Your task to perform on an android device: change notifications settings Image 0: 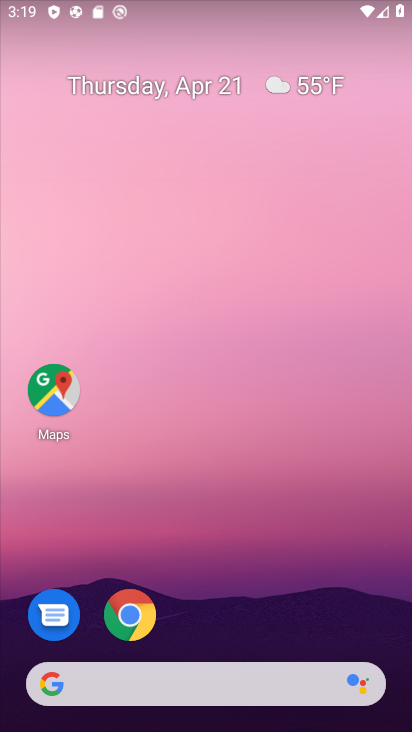
Step 0: drag from (307, 472) to (258, 24)
Your task to perform on an android device: change notifications settings Image 1: 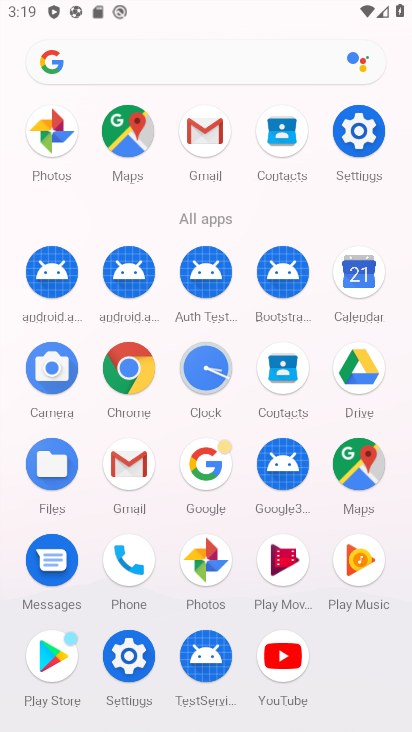
Step 1: click (131, 654)
Your task to perform on an android device: change notifications settings Image 2: 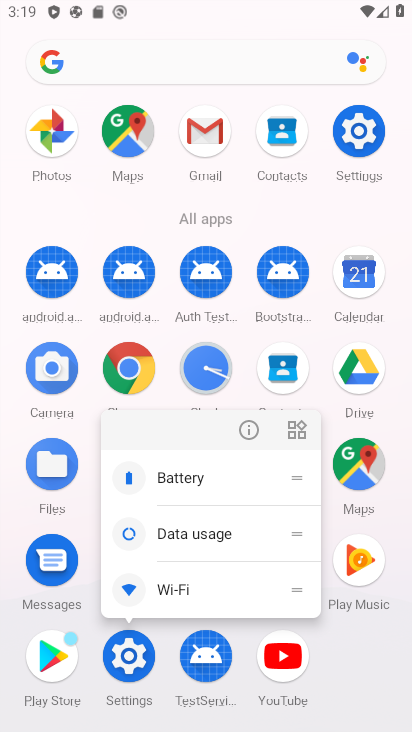
Step 2: click (131, 654)
Your task to perform on an android device: change notifications settings Image 3: 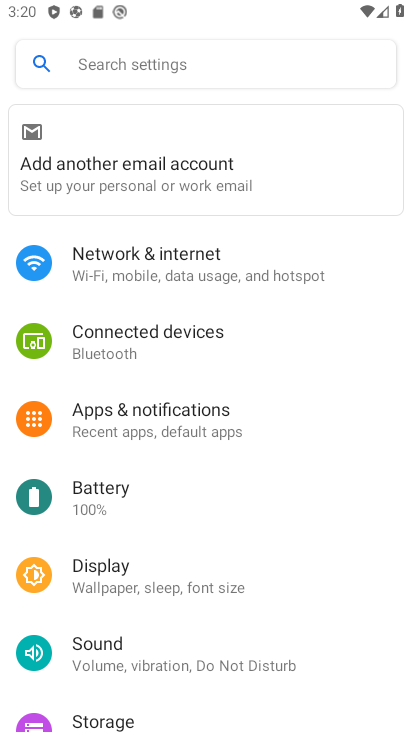
Step 3: drag from (293, 580) to (316, 215)
Your task to perform on an android device: change notifications settings Image 4: 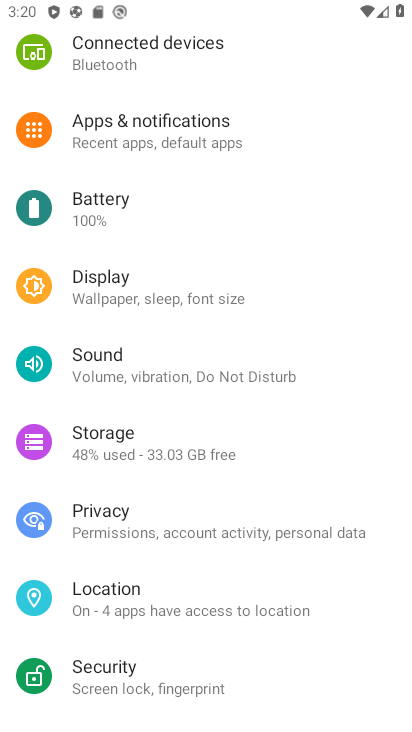
Step 4: click (206, 130)
Your task to perform on an android device: change notifications settings Image 5: 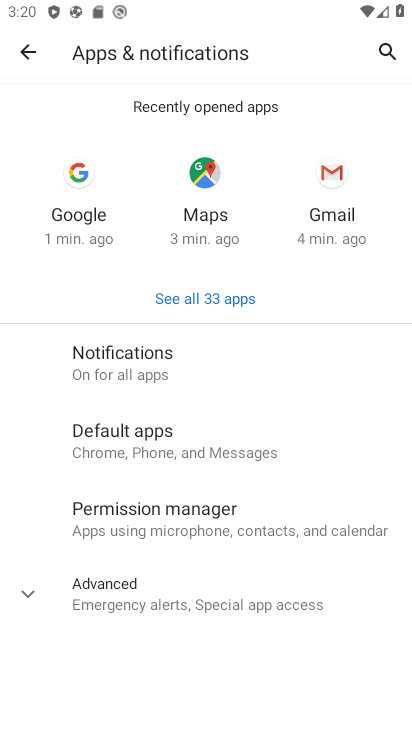
Step 5: click (180, 360)
Your task to perform on an android device: change notifications settings Image 6: 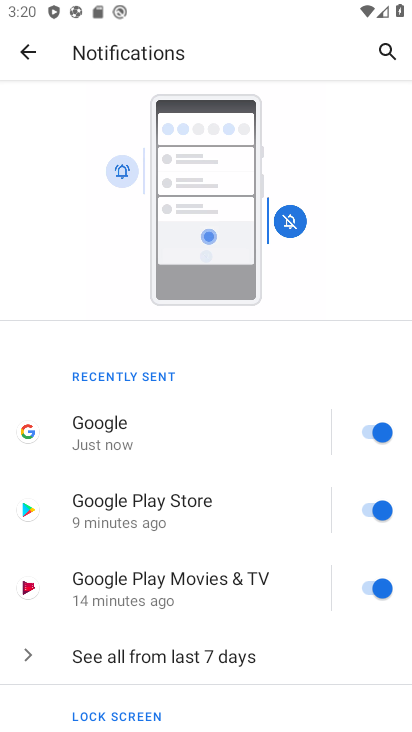
Step 6: drag from (188, 659) to (211, 190)
Your task to perform on an android device: change notifications settings Image 7: 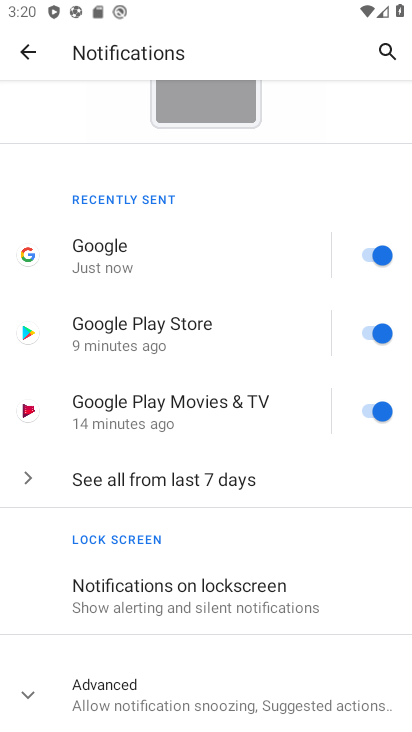
Step 7: click (34, 678)
Your task to perform on an android device: change notifications settings Image 8: 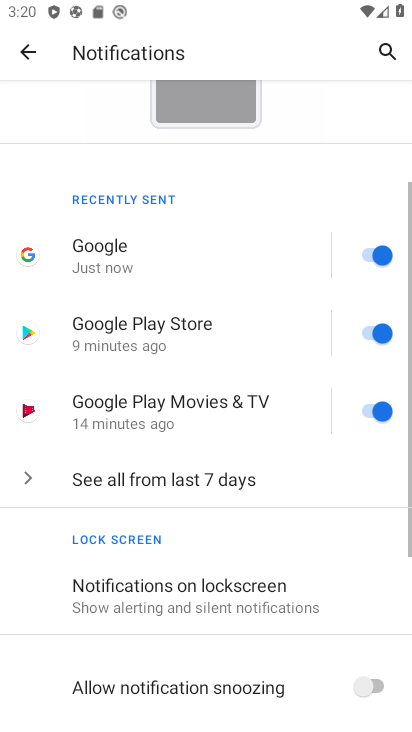
Step 8: drag from (205, 648) to (242, 145)
Your task to perform on an android device: change notifications settings Image 9: 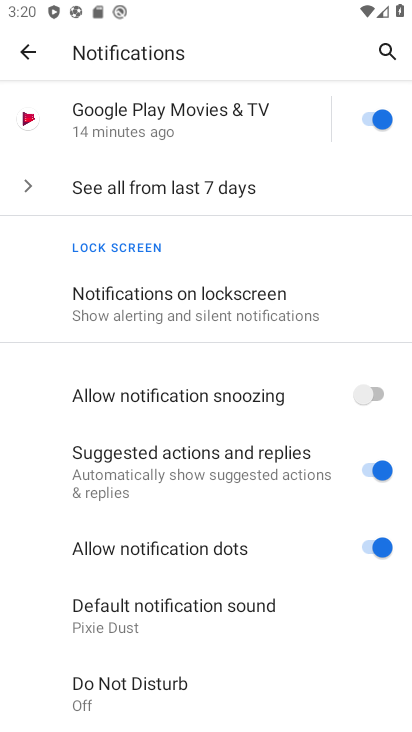
Step 9: drag from (219, 551) to (232, 142)
Your task to perform on an android device: change notifications settings Image 10: 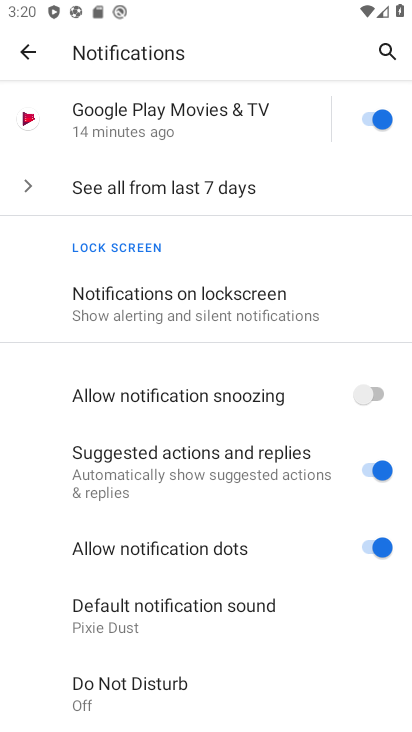
Step 10: click (262, 321)
Your task to perform on an android device: change notifications settings Image 11: 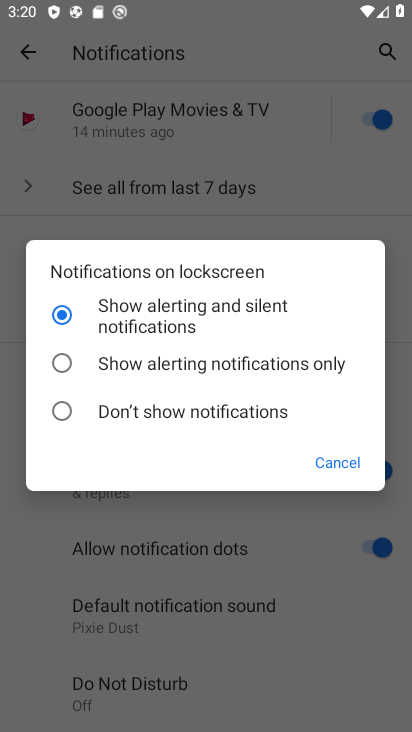
Step 11: click (145, 411)
Your task to perform on an android device: change notifications settings Image 12: 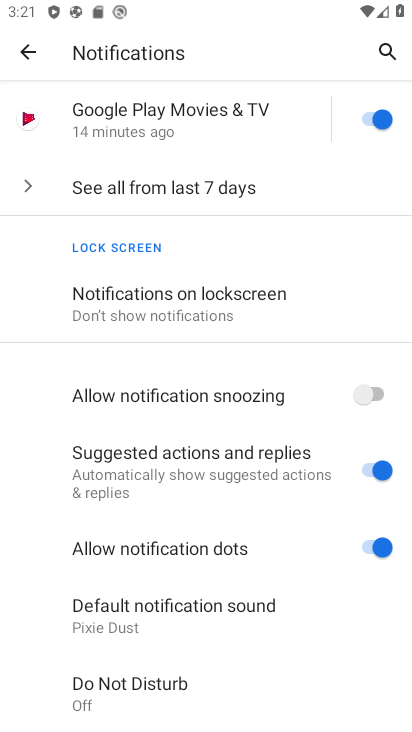
Step 12: click (389, 390)
Your task to perform on an android device: change notifications settings Image 13: 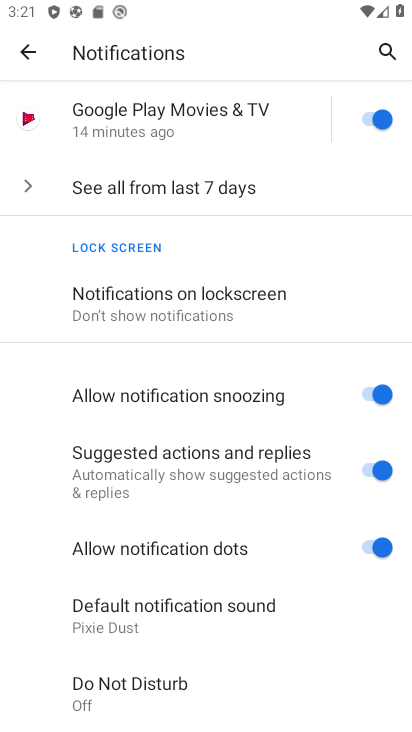
Step 13: task complete